Your task to perform on an android device: turn off translation in the chrome app Image 0: 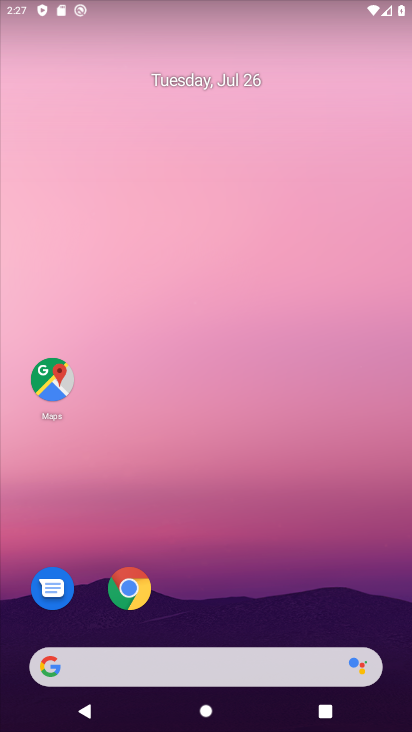
Step 0: drag from (281, 513) to (353, 53)
Your task to perform on an android device: turn off translation in the chrome app Image 1: 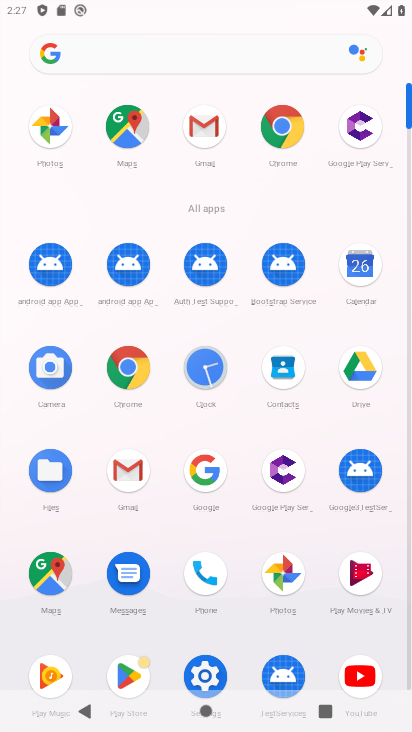
Step 1: click (306, 125)
Your task to perform on an android device: turn off translation in the chrome app Image 2: 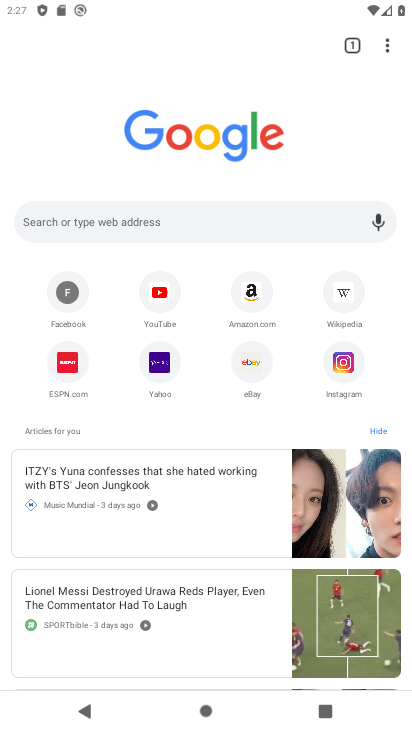
Step 2: drag from (397, 41) to (239, 376)
Your task to perform on an android device: turn off translation in the chrome app Image 3: 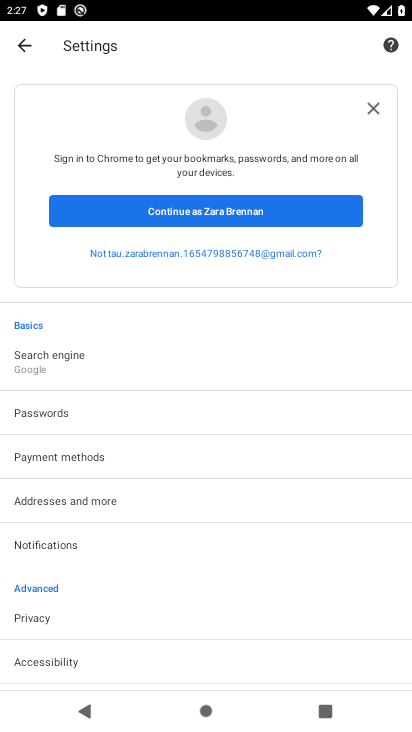
Step 3: drag from (141, 628) to (116, 295)
Your task to perform on an android device: turn off translation in the chrome app Image 4: 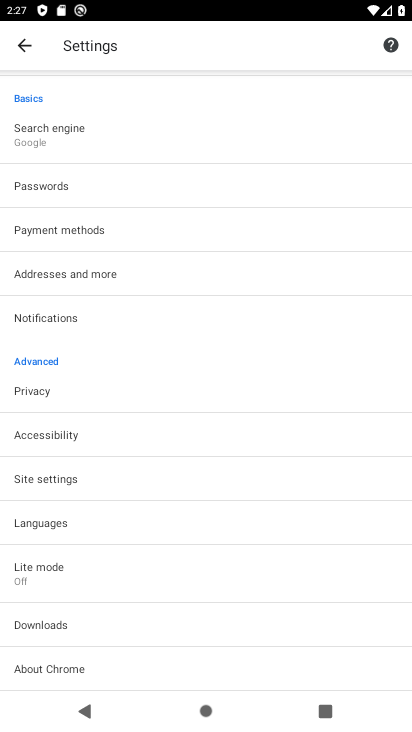
Step 4: click (29, 524)
Your task to perform on an android device: turn off translation in the chrome app Image 5: 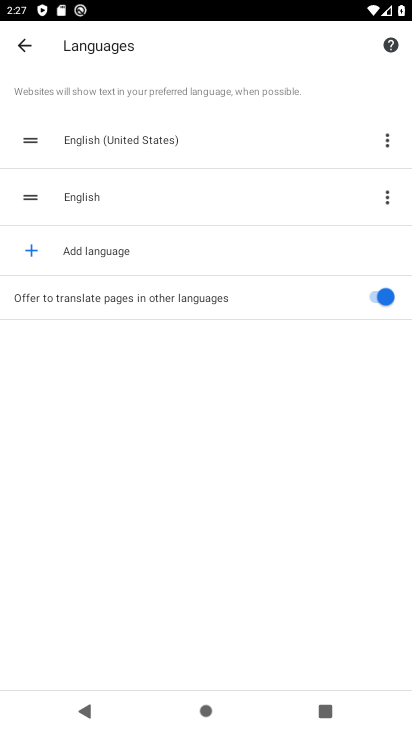
Step 5: click (375, 291)
Your task to perform on an android device: turn off translation in the chrome app Image 6: 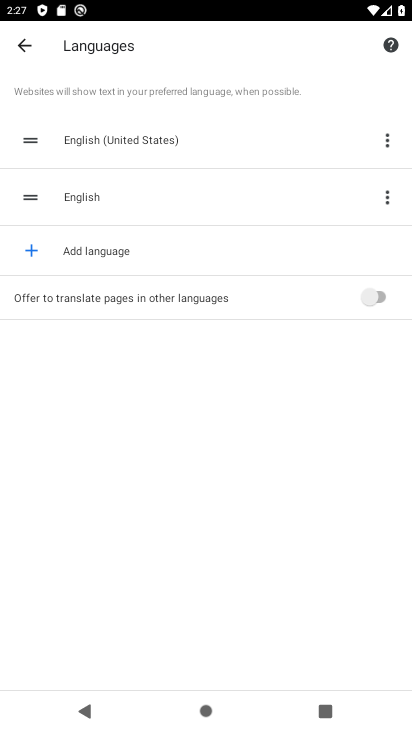
Step 6: task complete